Your task to perform on an android device: Clear the cart on walmart. Image 0: 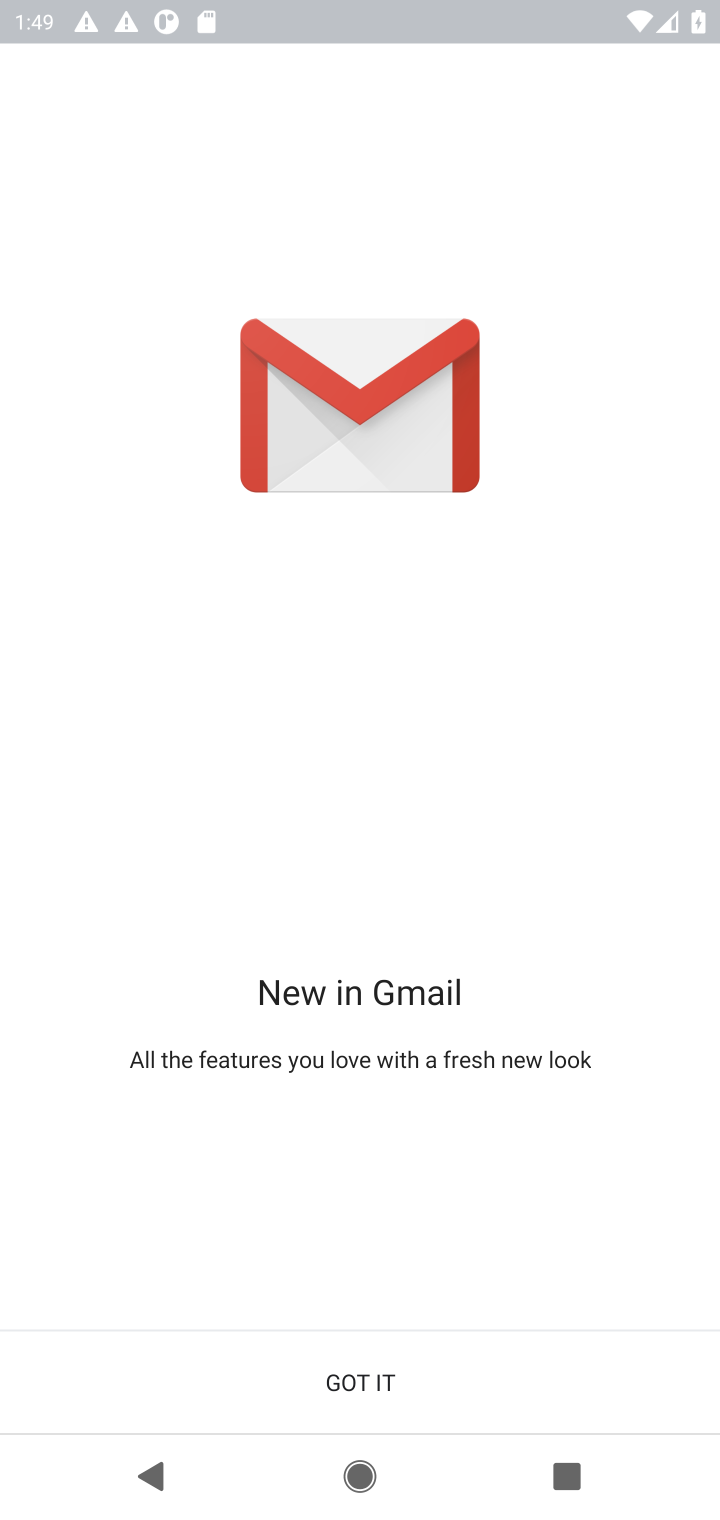
Step 0: press home button
Your task to perform on an android device: Clear the cart on walmart. Image 1: 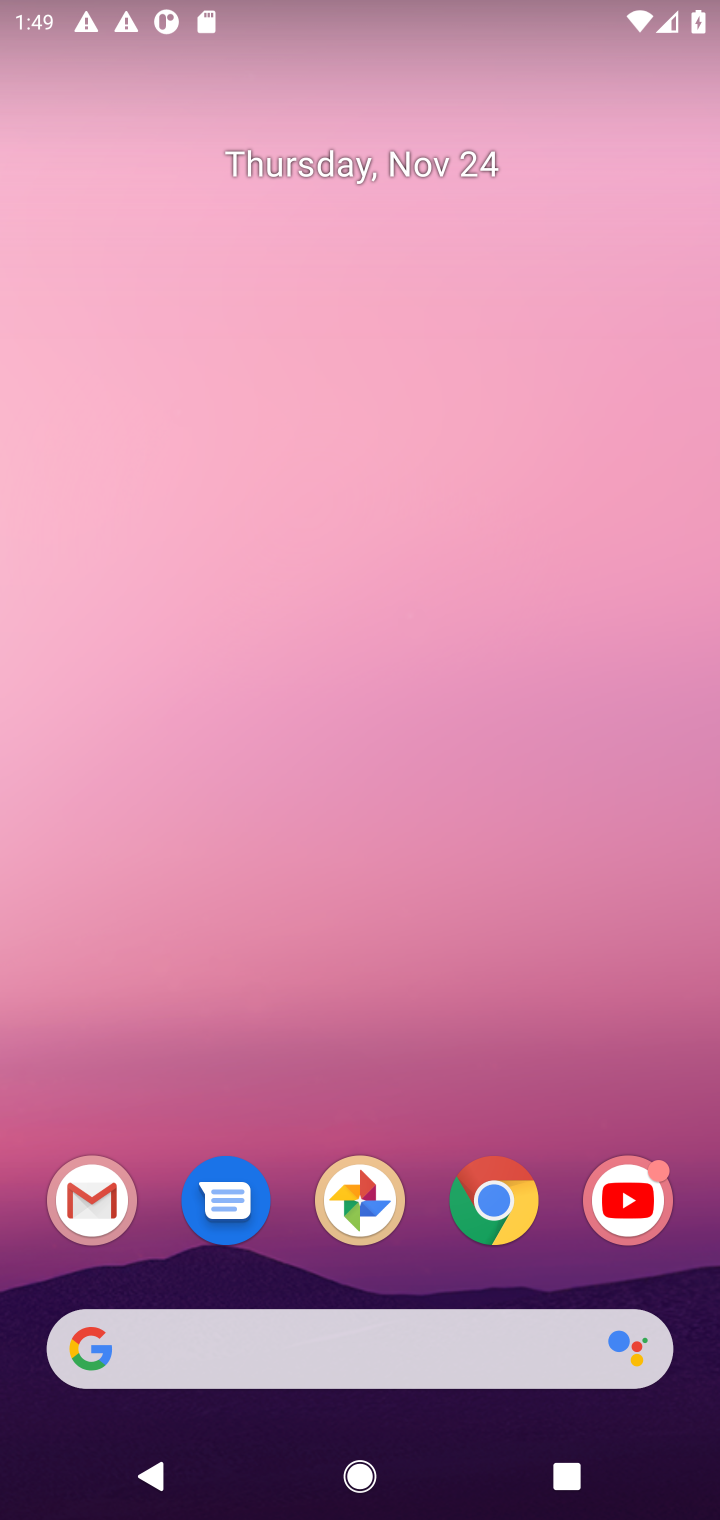
Step 1: click (285, 1353)
Your task to perform on an android device: Clear the cart on walmart. Image 2: 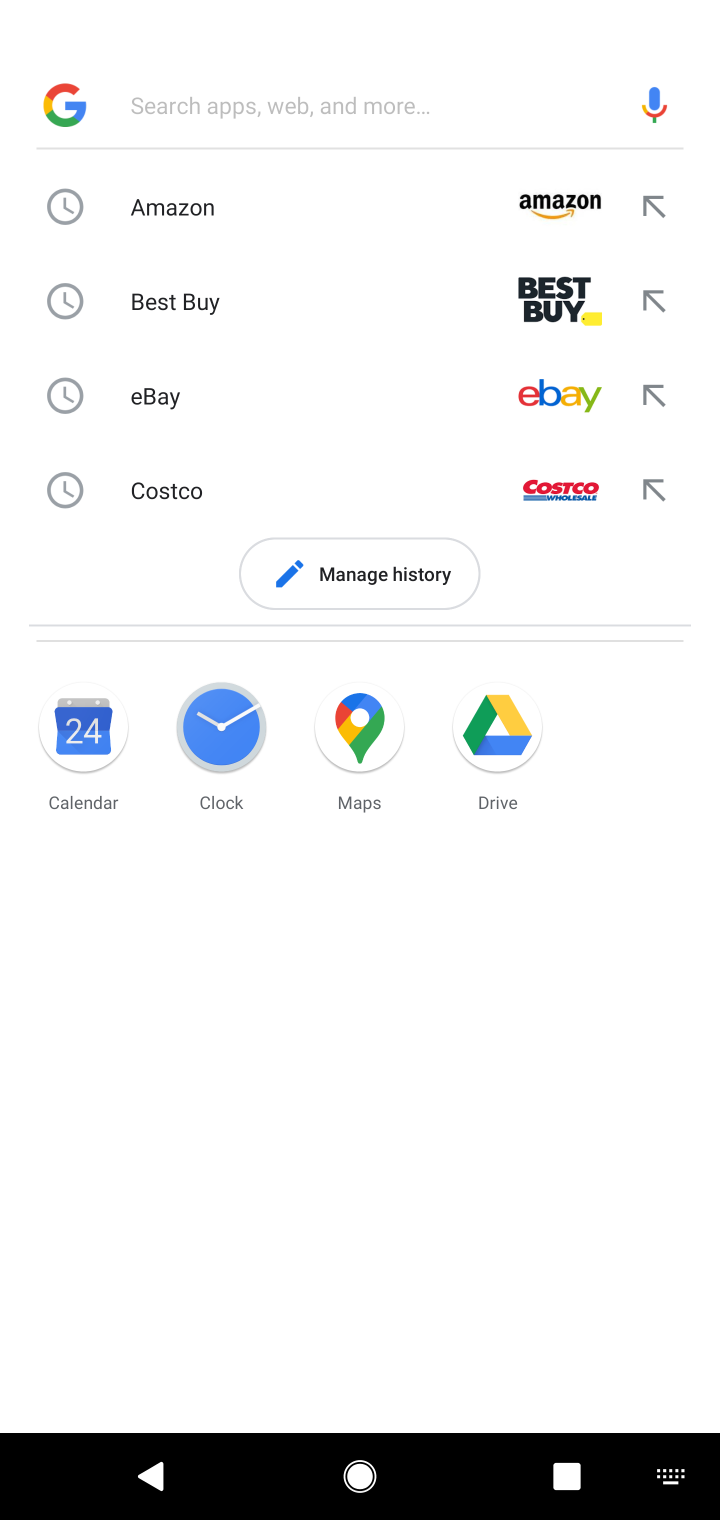
Step 2: type "walmart"
Your task to perform on an android device: Clear the cart on walmart. Image 3: 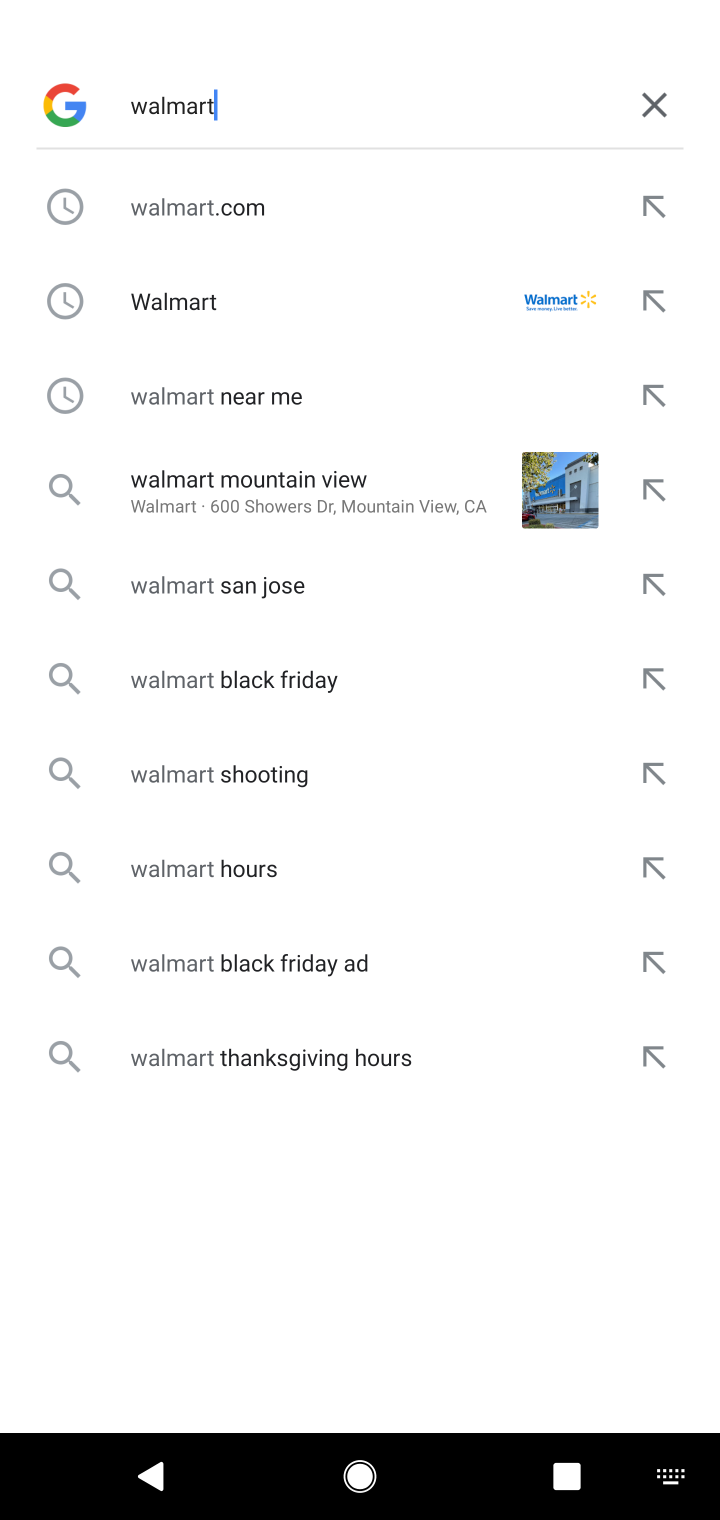
Step 3: click (257, 241)
Your task to perform on an android device: Clear the cart on walmart. Image 4: 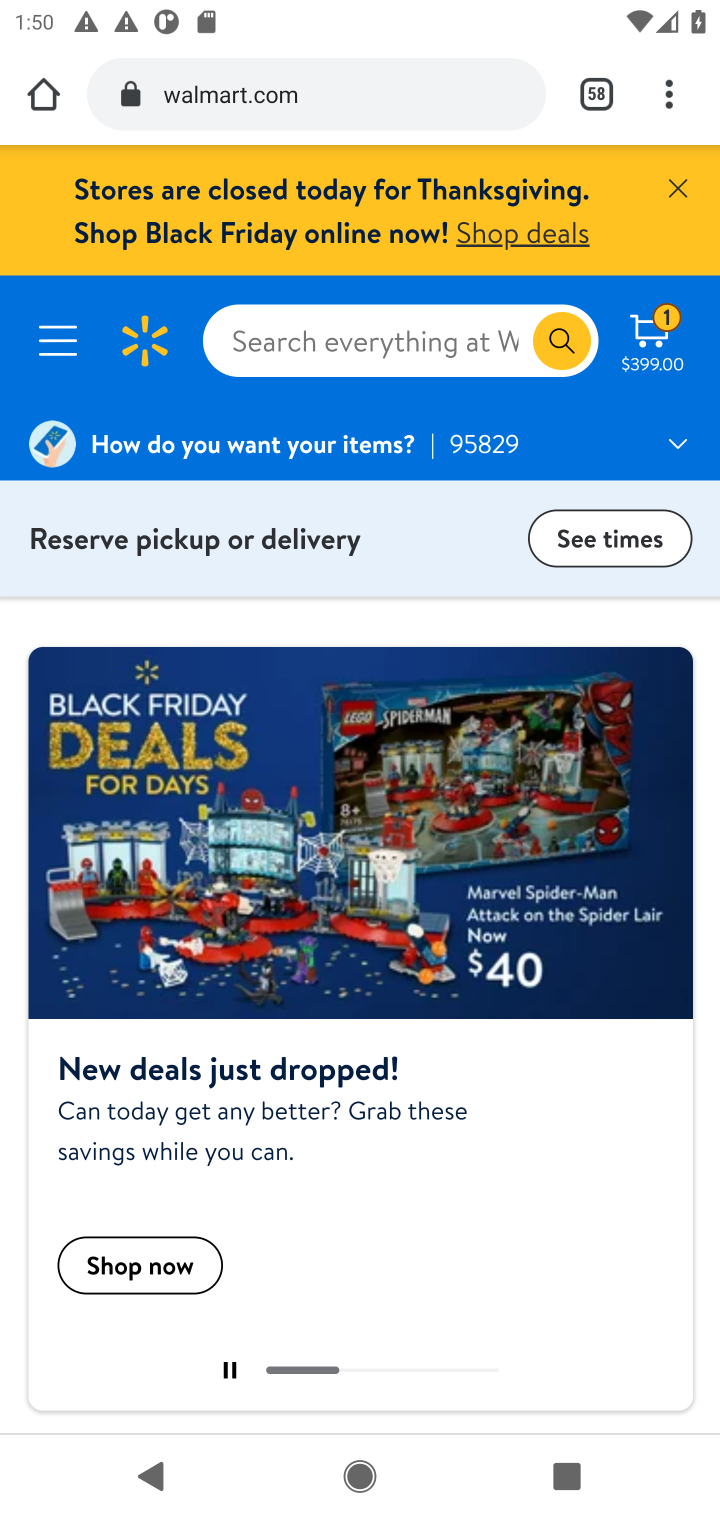
Step 4: click (674, 182)
Your task to perform on an android device: Clear the cart on walmart. Image 5: 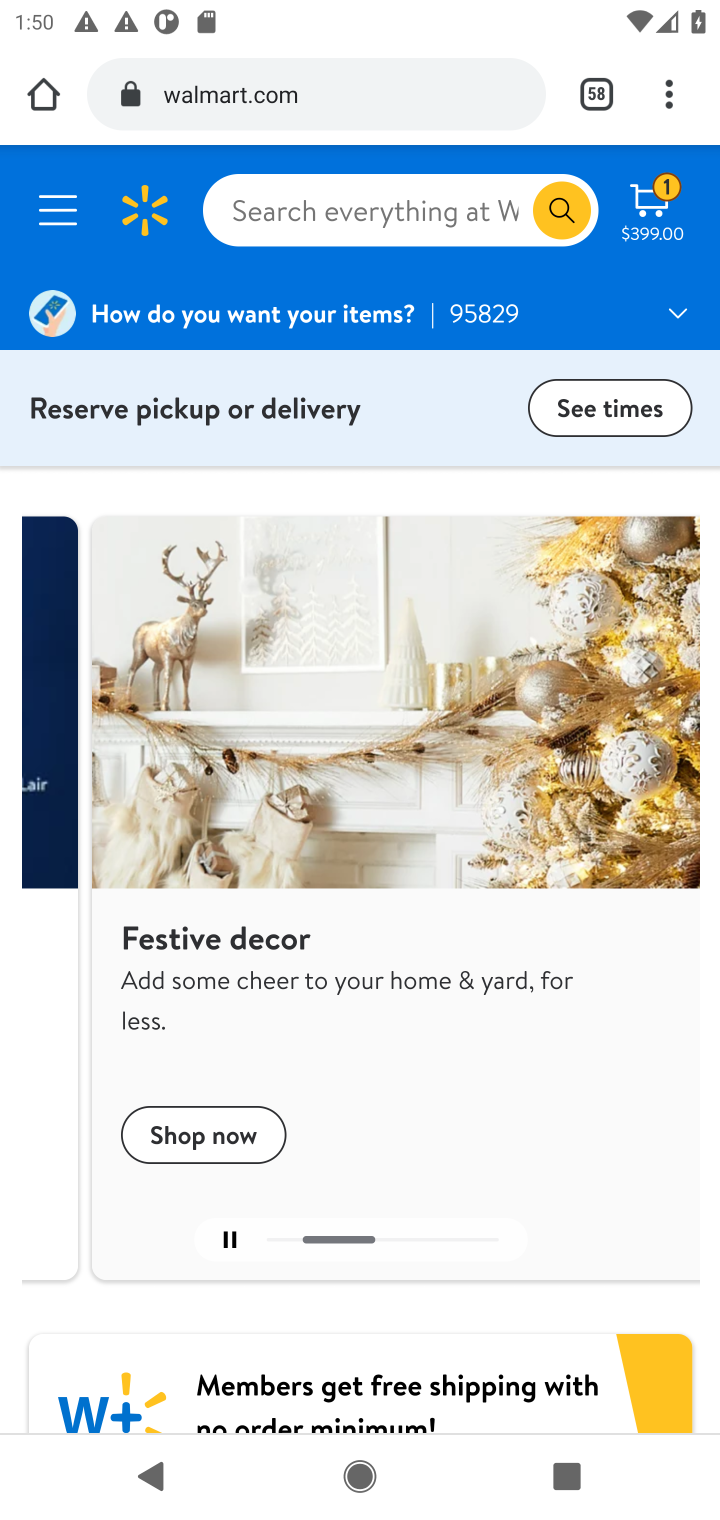
Step 5: click (389, 355)
Your task to perform on an android device: Clear the cart on walmart. Image 6: 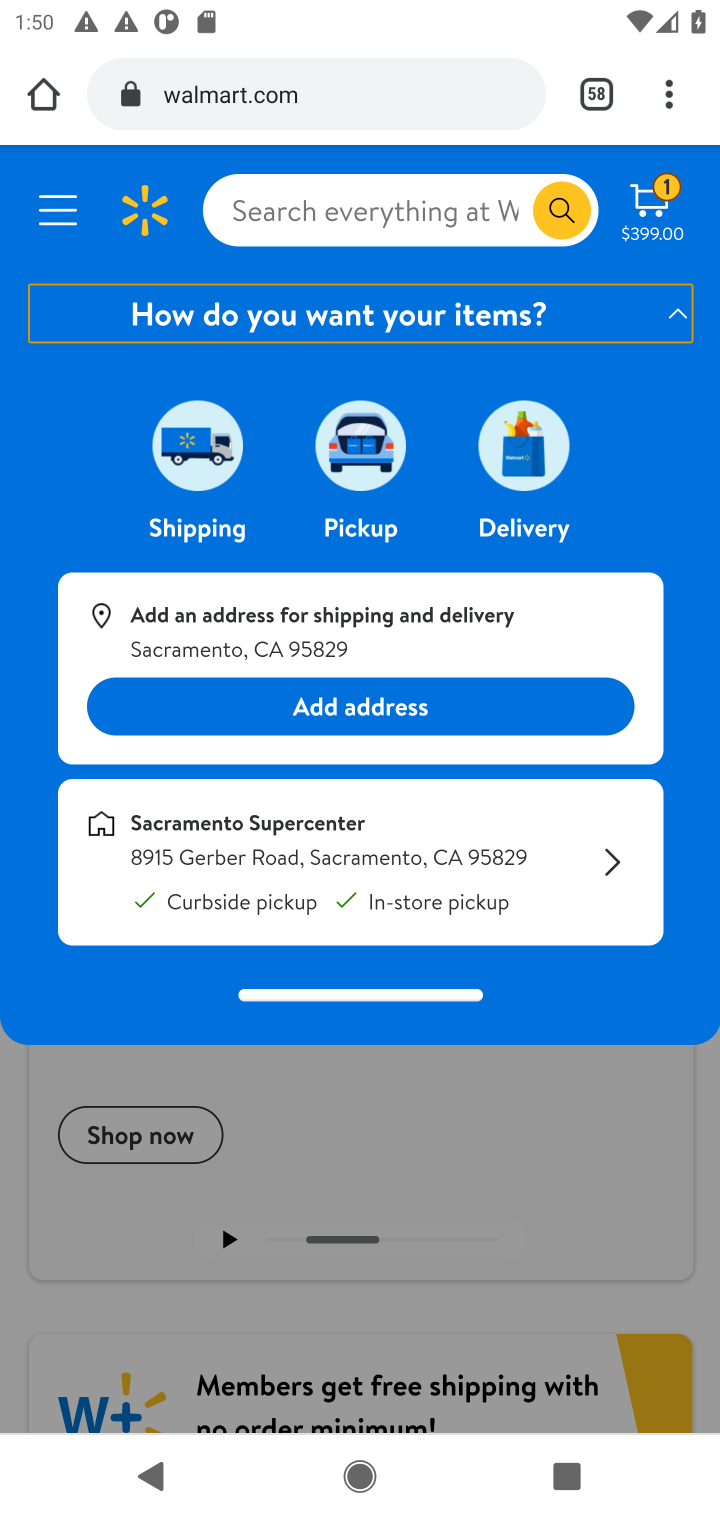
Step 6: click (336, 229)
Your task to perform on an android device: Clear the cart on walmart. Image 7: 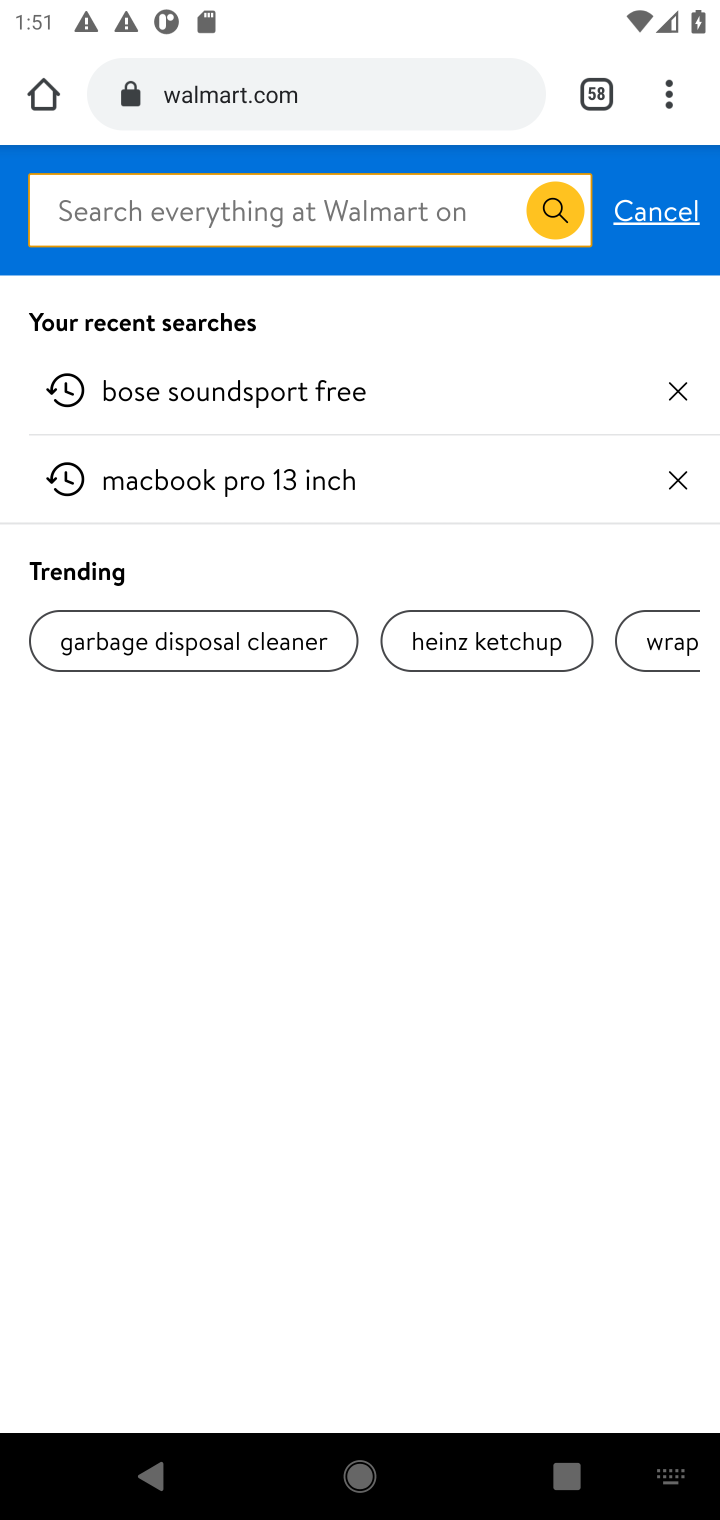
Step 7: click (669, 390)
Your task to perform on an android device: Clear the cart on walmart. Image 8: 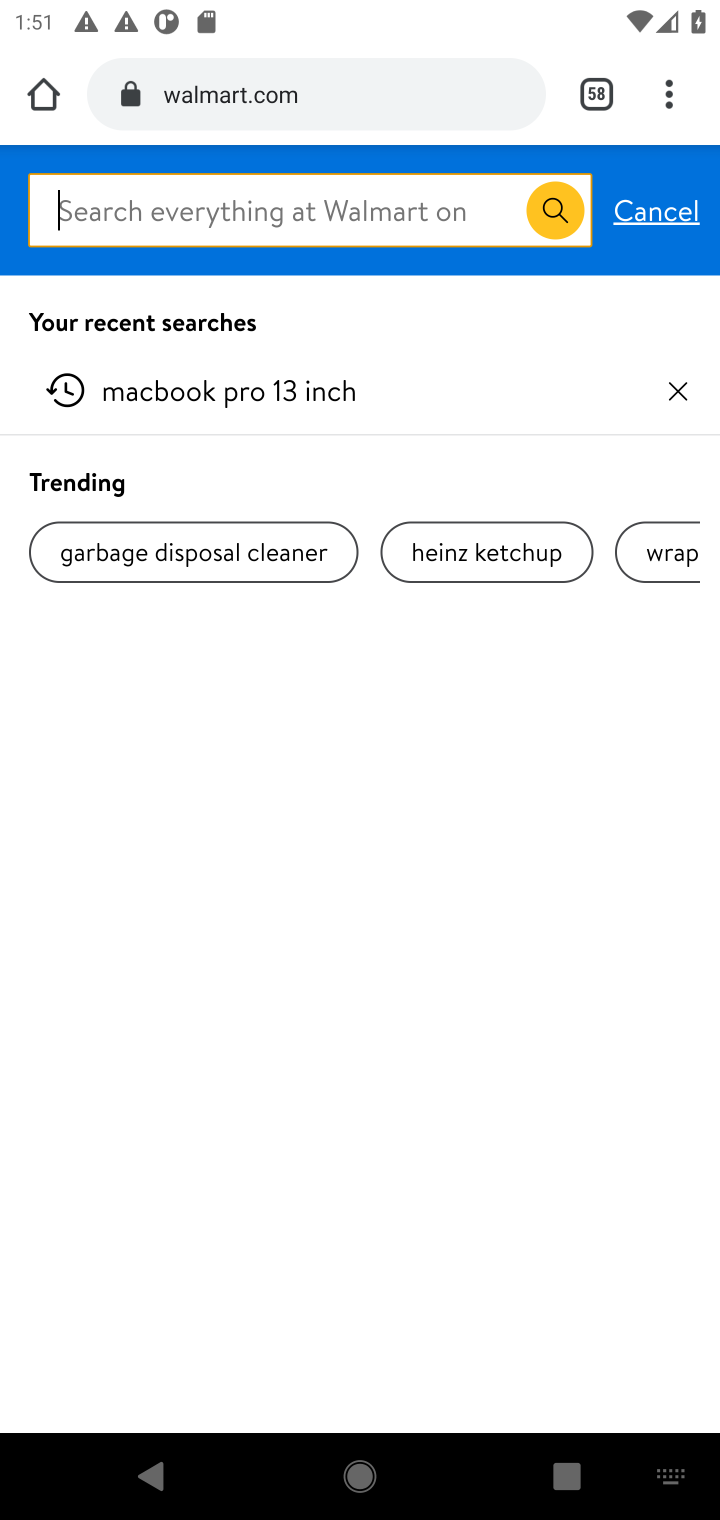
Step 8: click (669, 390)
Your task to perform on an android device: Clear the cart on walmart. Image 9: 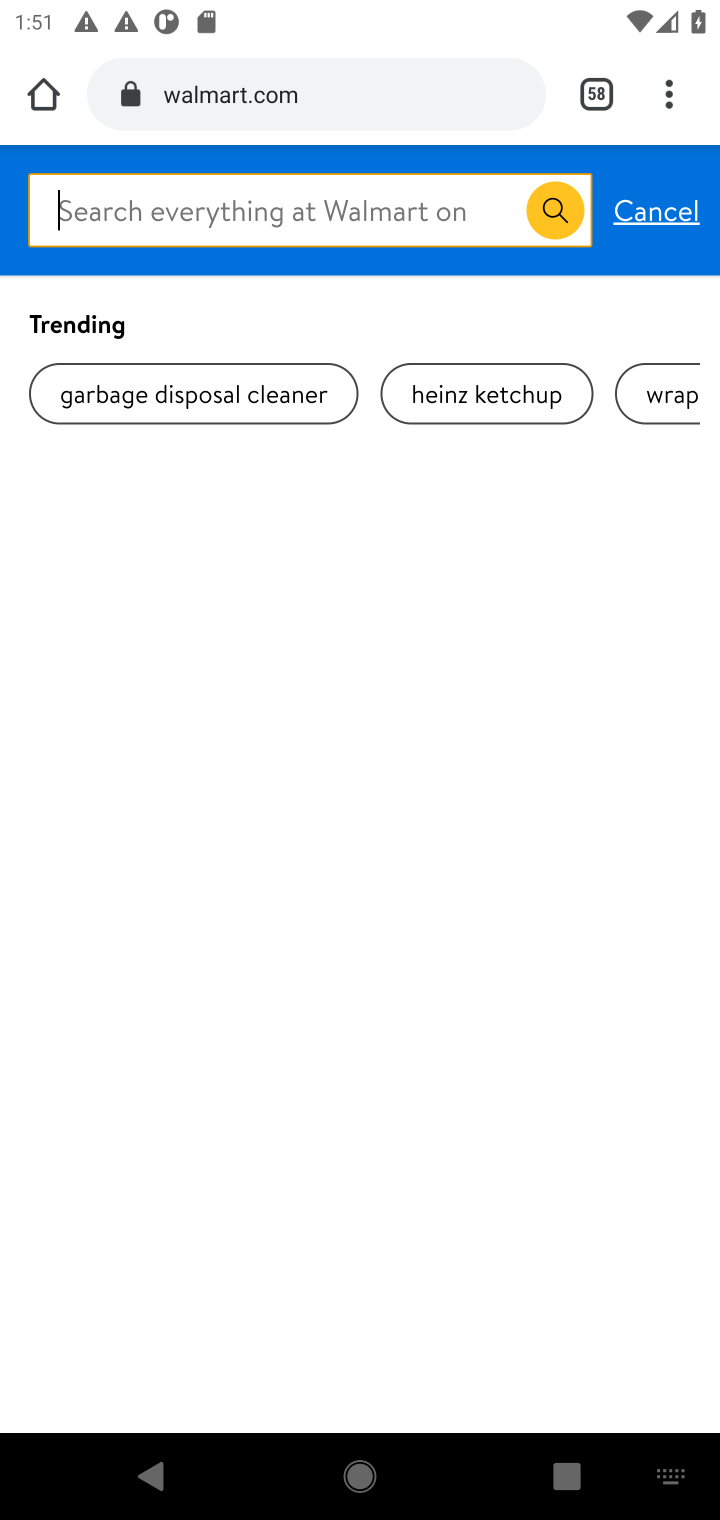
Step 9: click (694, 203)
Your task to perform on an android device: Clear the cart on walmart. Image 10: 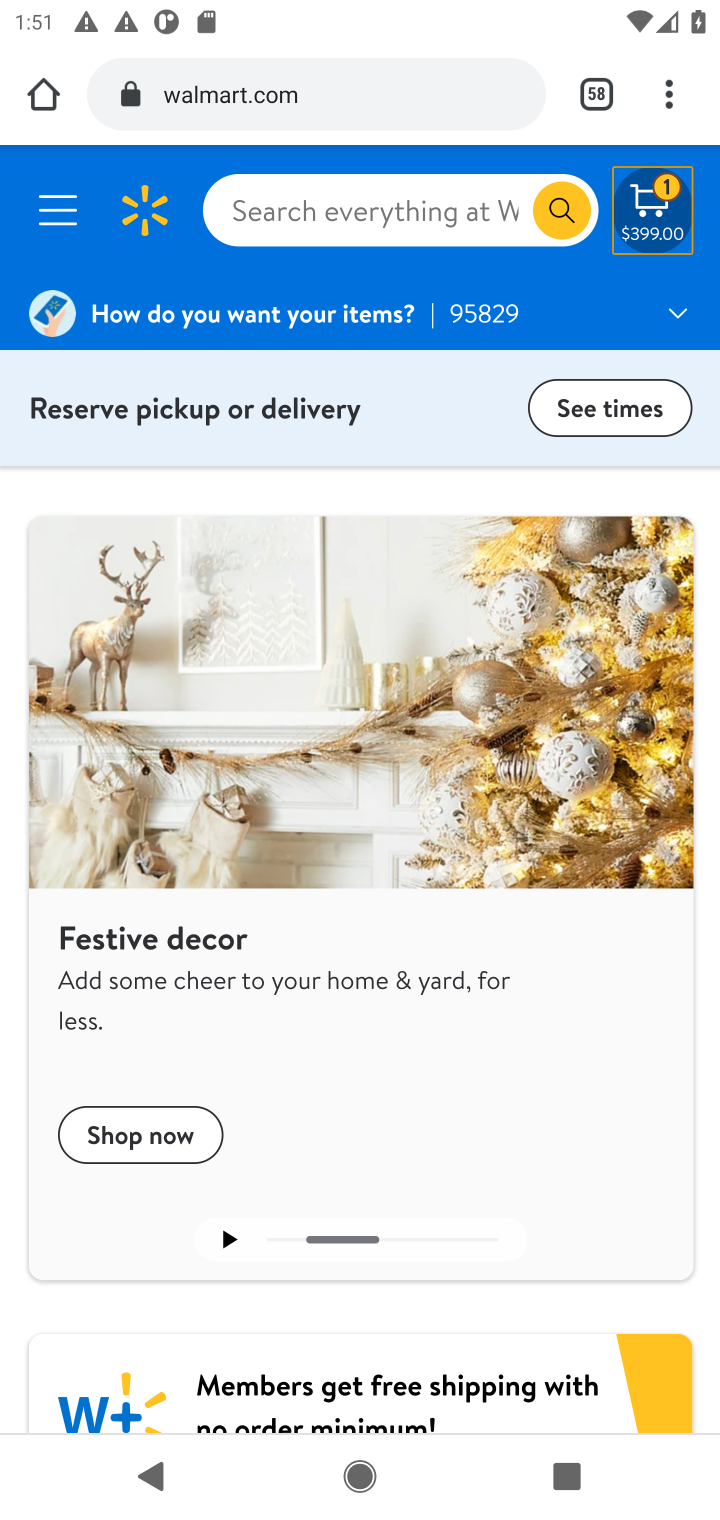
Step 10: click (639, 221)
Your task to perform on an android device: Clear the cart on walmart. Image 11: 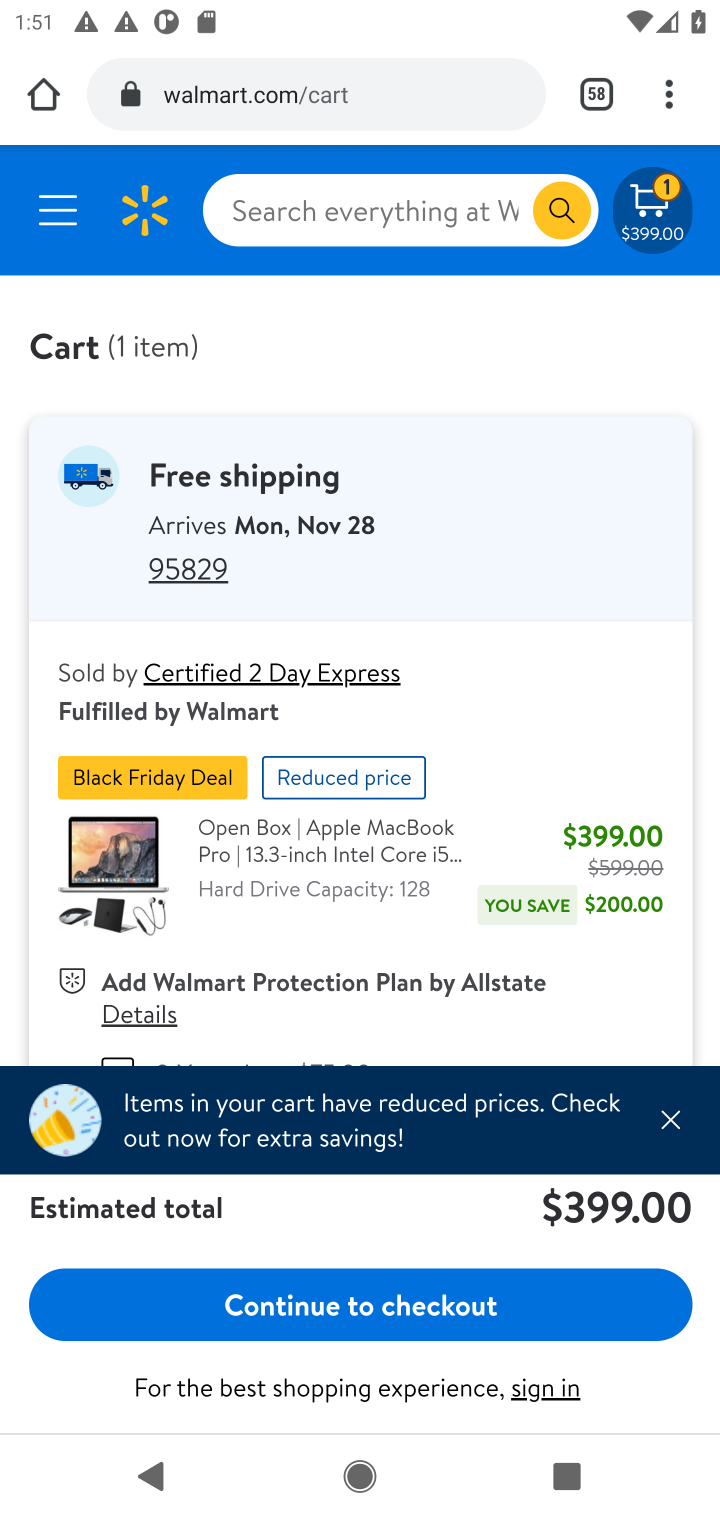
Step 11: click (681, 1116)
Your task to perform on an android device: Clear the cart on walmart. Image 12: 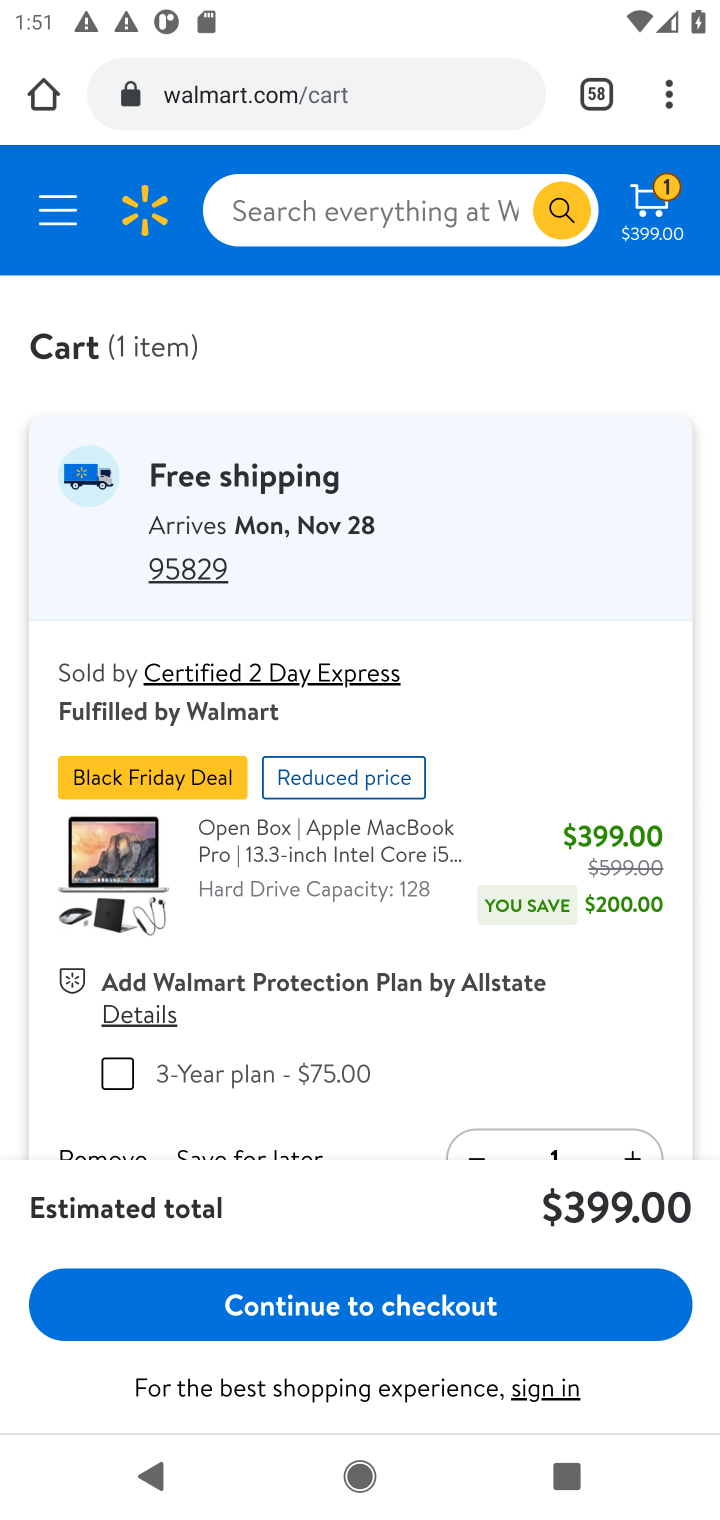
Step 12: drag from (527, 1056) to (525, 544)
Your task to perform on an android device: Clear the cart on walmart. Image 13: 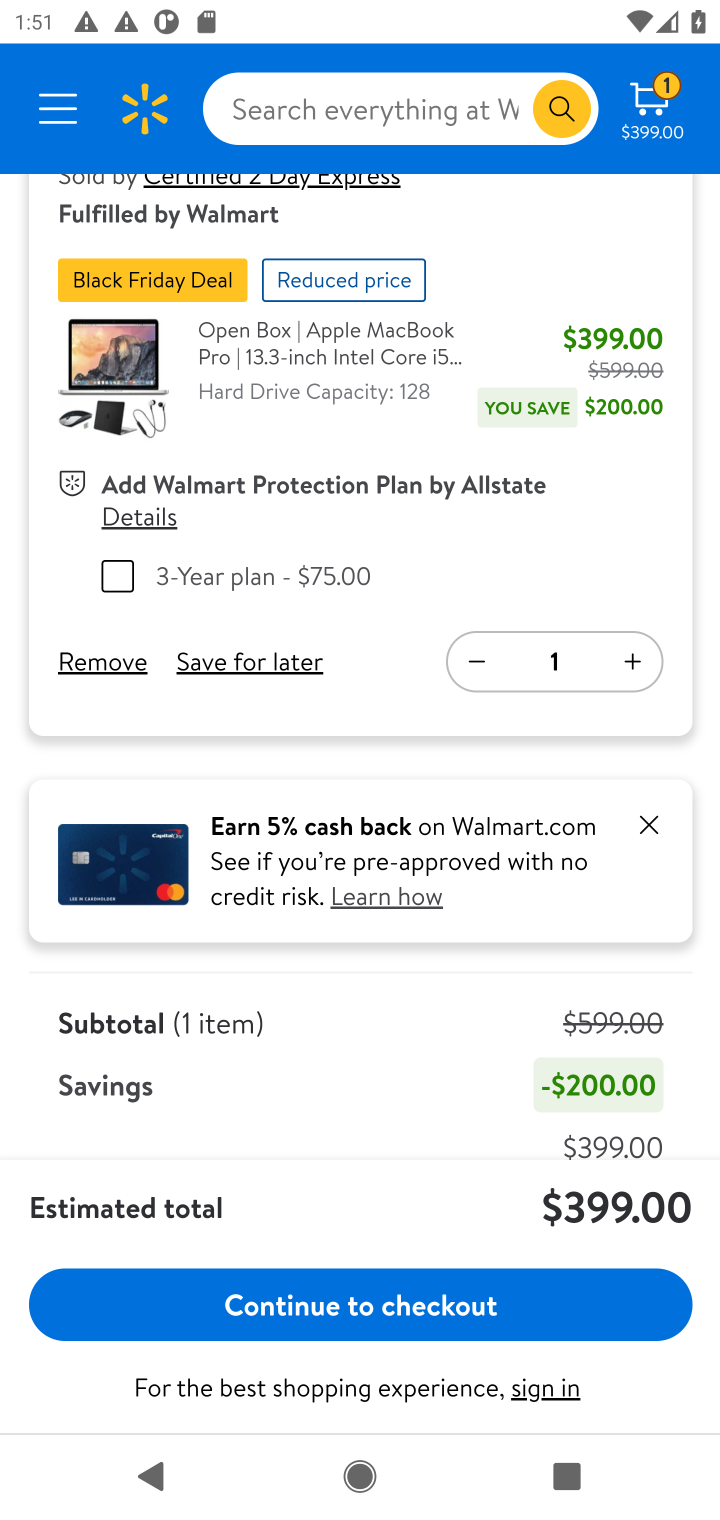
Step 13: click (650, 834)
Your task to perform on an android device: Clear the cart on walmart. Image 14: 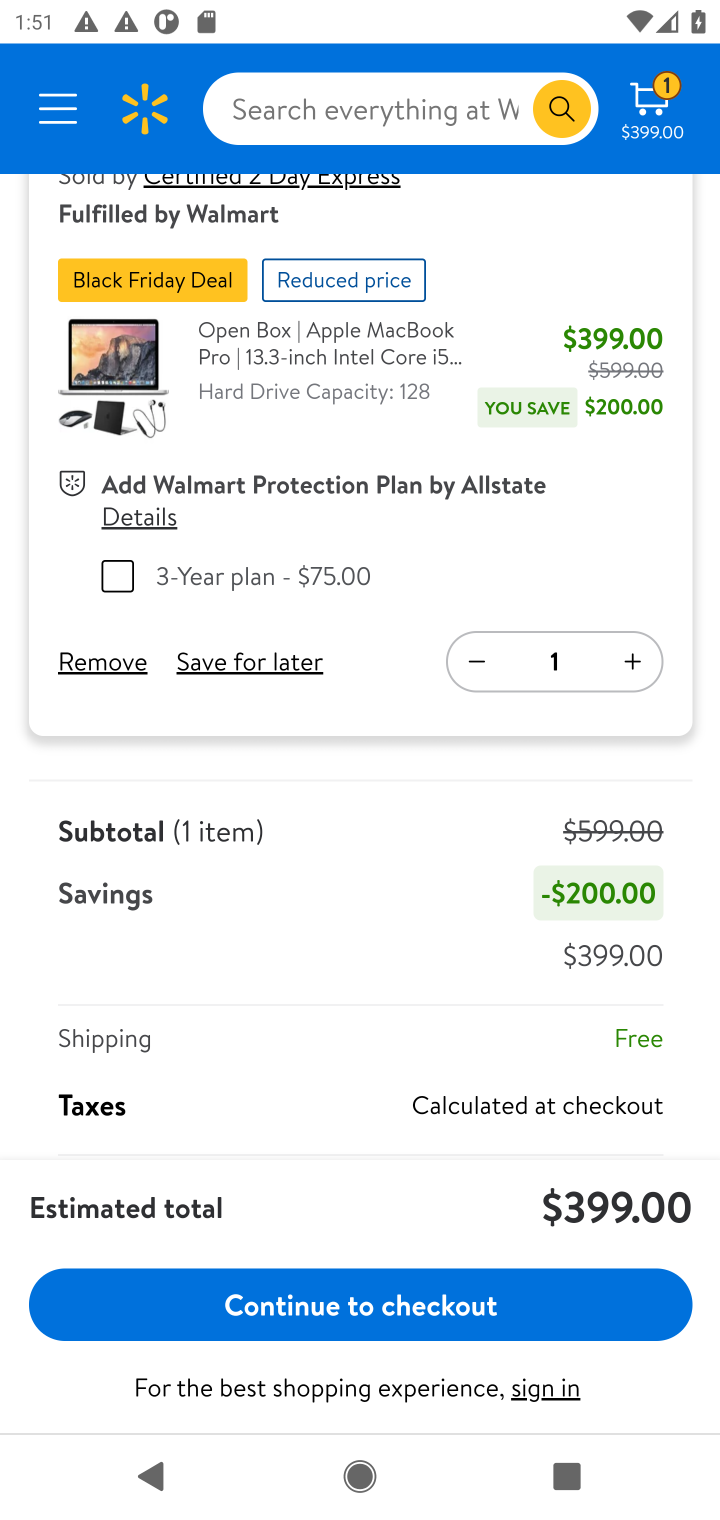
Step 14: click (96, 668)
Your task to perform on an android device: Clear the cart on walmart. Image 15: 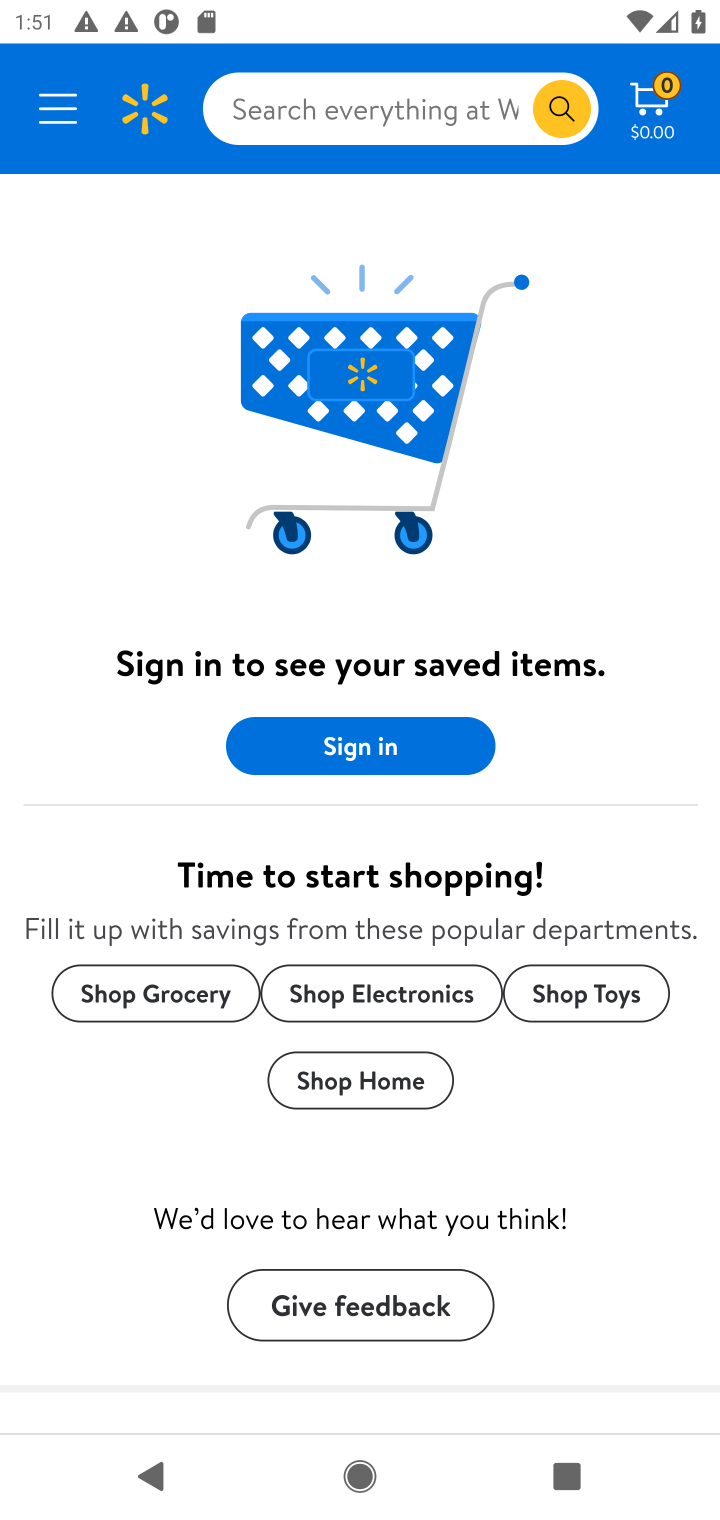
Step 15: task complete